Your task to perform on an android device: open a new tab in the chrome app Image 0: 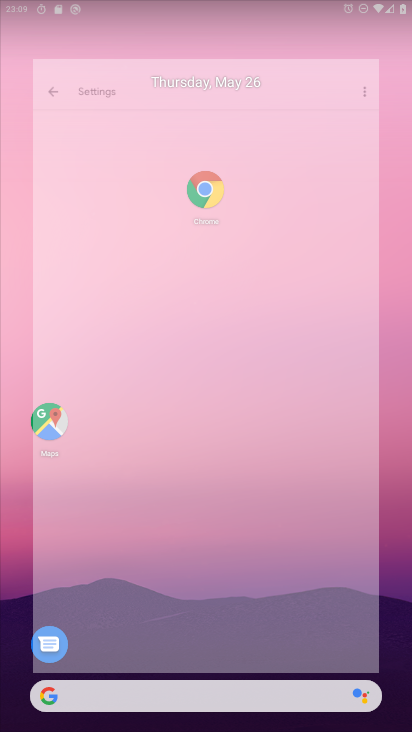
Step 0: drag from (262, 436) to (412, 291)
Your task to perform on an android device: open a new tab in the chrome app Image 1: 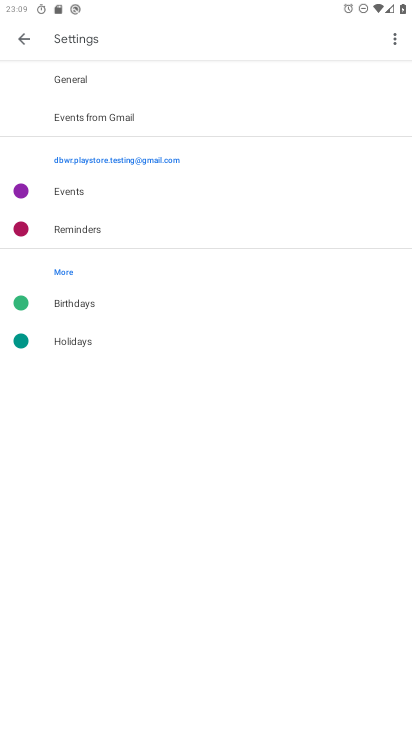
Step 1: press home button
Your task to perform on an android device: open a new tab in the chrome app Image 2: 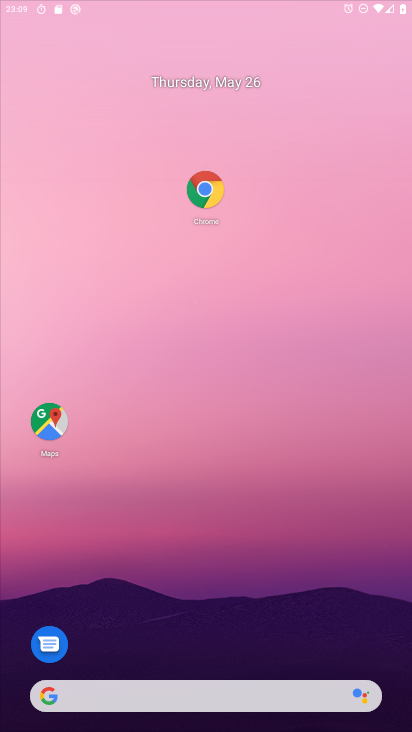
Step 2: drag from (195, 580) to (271, 49)
Your task to perform on an android device: open a new tab in the chrome app Image 3: 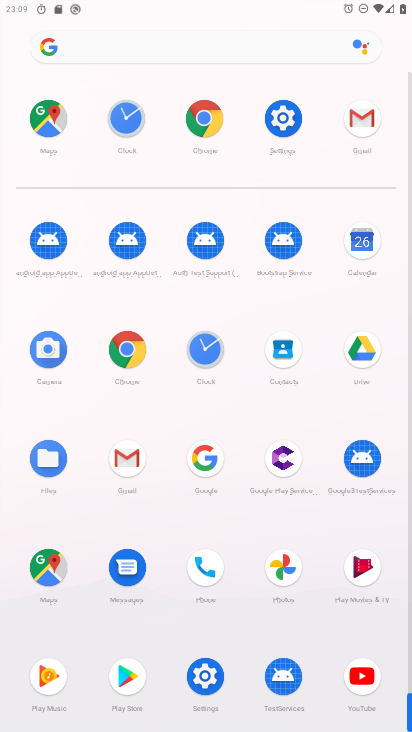
Step 3: click (128, 347)
Your task to perform on an android device: open a new tab in the chrome app Image 4: 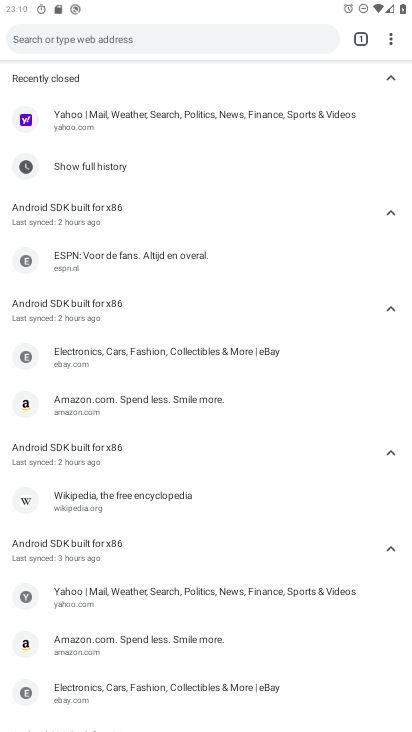
Step 4: click (359, 49)
Your task to perform on an android device: open a new tab in the chrome app Image 5: 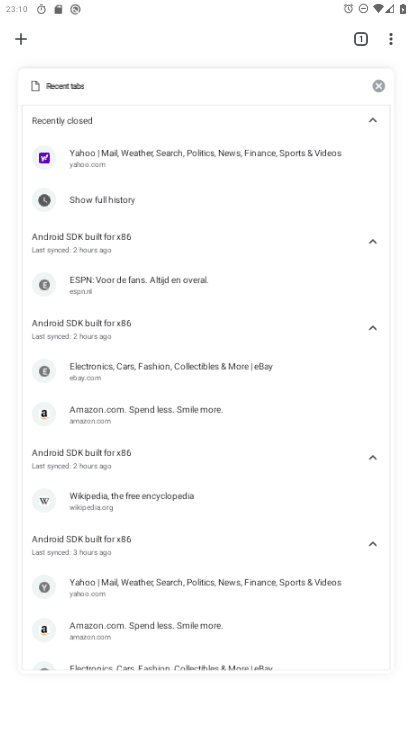
Step 5: click (14, 45)
Your task to perform on an android device: open a new tab in the chrome app Image 6: 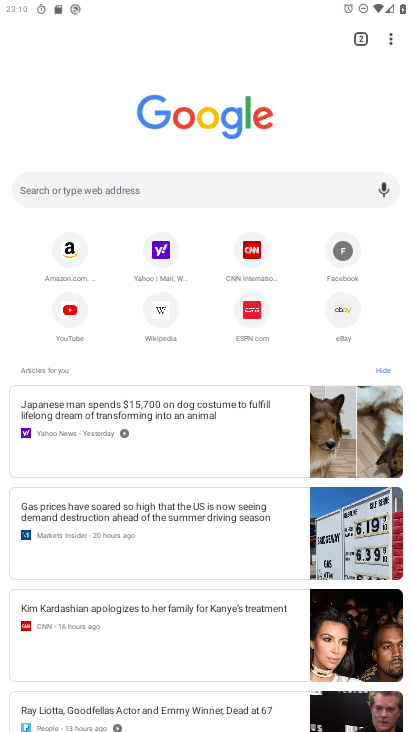
Step 6: task complete